Your task to perform on an android device: Go to internet settings Image 0: 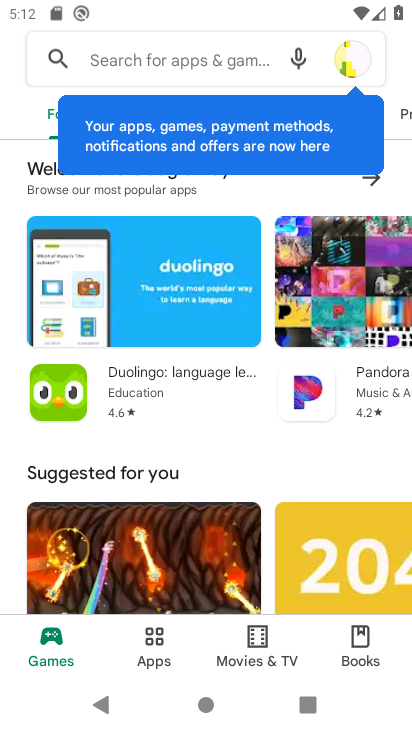
Step 0: press home button
Your task to perform on an android device: Go to internet settings Image 1: 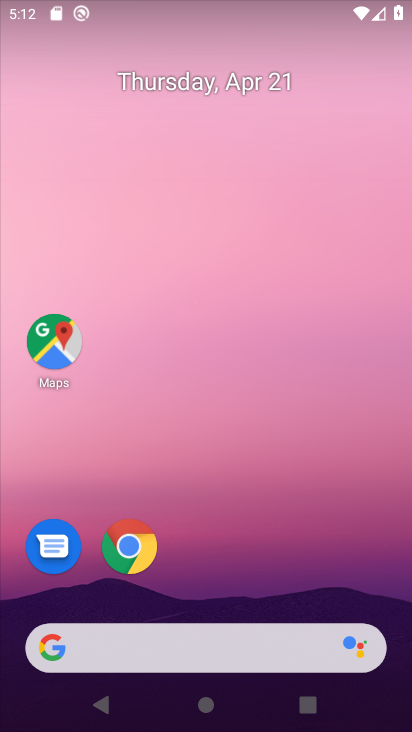
Step 1: drag from (349, 499) to (278, 61)
Your task to perform on an android device: Go to internet settings Image 2: 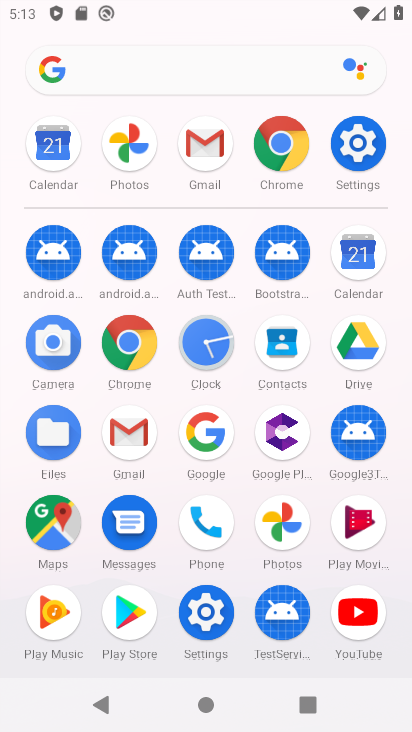
Step 2: click (353, 162)
Your task to perform on an android device: Go to internet settings Image 3: 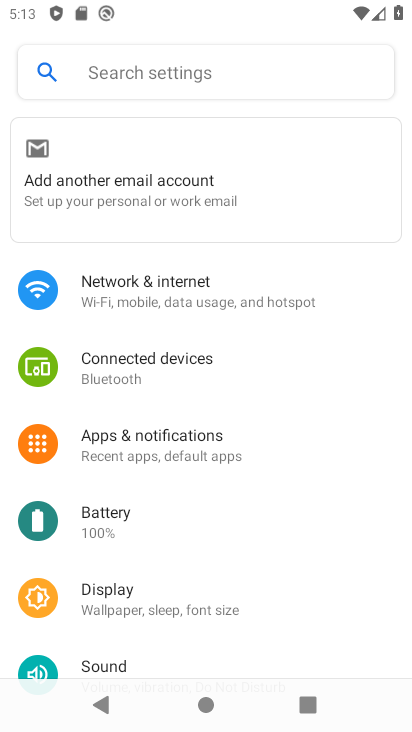
Step 3: click (200, 283)
Your task to perform on an android device: Go to internet settings Image 4: 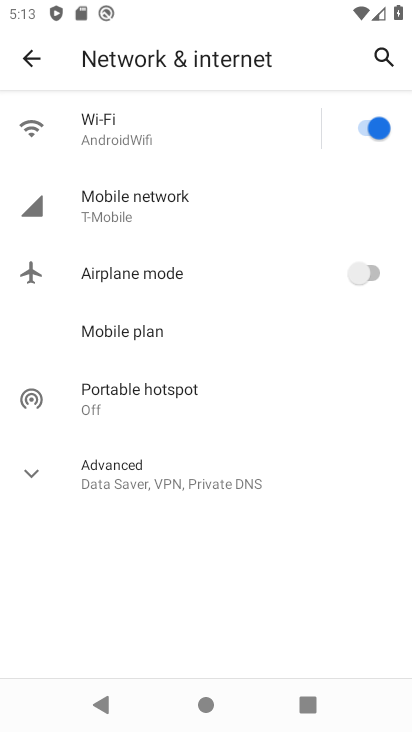
Step 4: task complete